Your task to perform on an android device: Open calendar and show me the first week of next month Image 0: 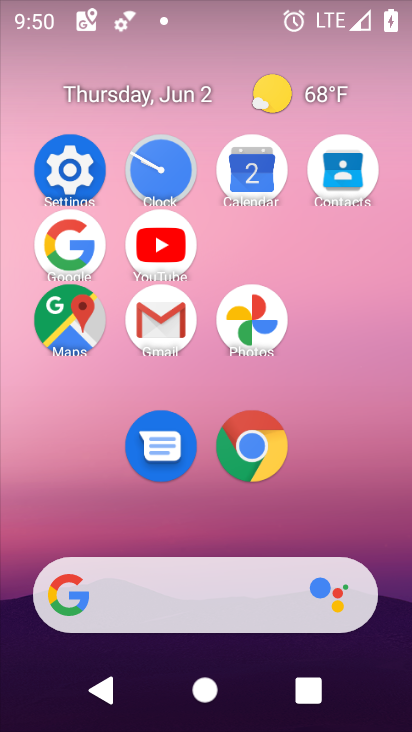
Step 0: click (259, 180)
Your task to perform on an android device: Open calendar and show me the first week of next month Image 1: 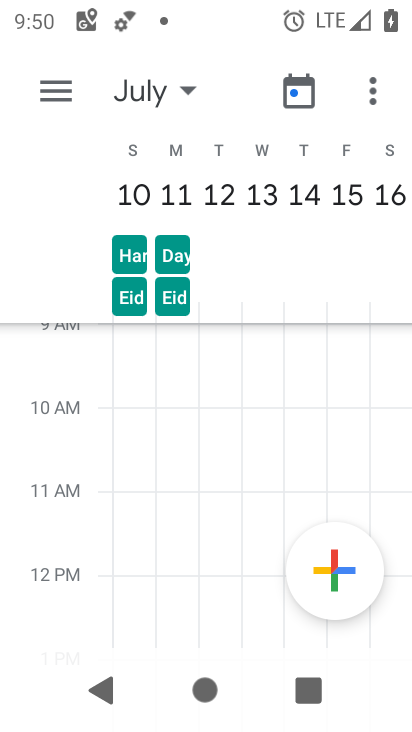
Step 1: task complete